Your task to perform on an android device: open a bookmark in the chrome app Image 0: 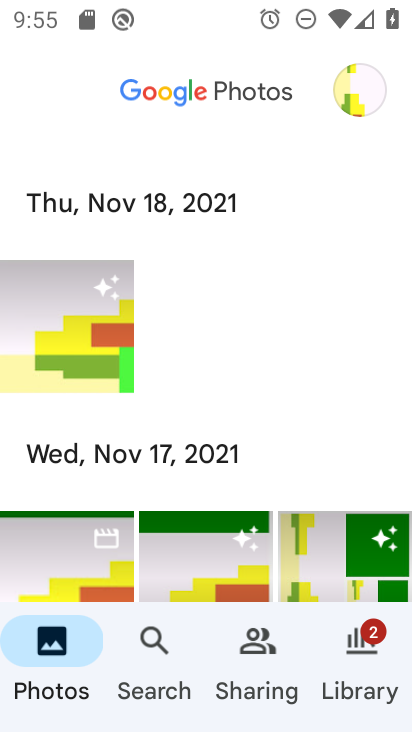
Step 0: press home button
Your task to perform on an android device: open a bookmark in the chrome app Image 1: 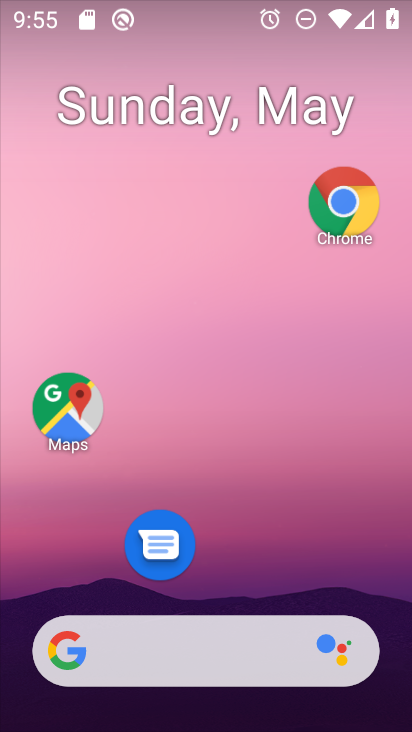
Step 1: click (347, 196)
Your task to perform on an android device: open a bookmark in the chrome app Image 2: 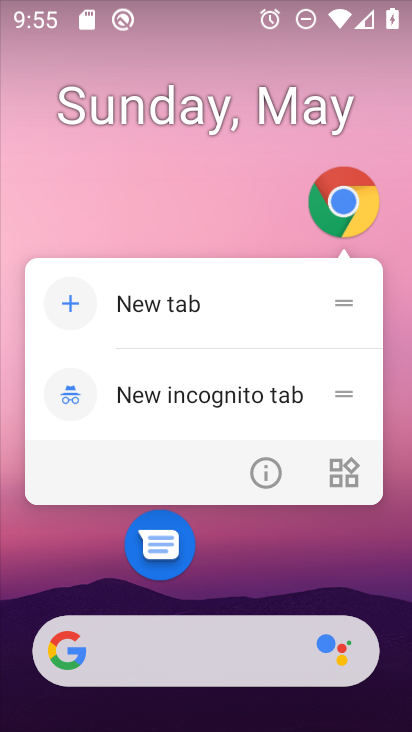
Step 2: click (347, 196)
Your task to perform on an android device: open a bookmark in the chrome app Image 3: 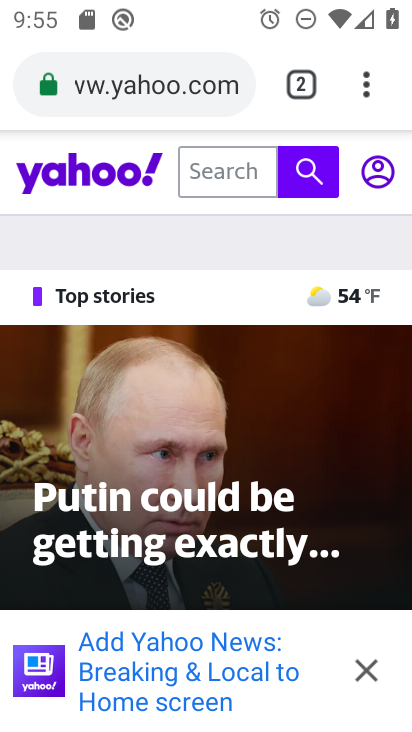
Step 3: click (356, 83)
Your task to perform on an android device: open a bookmark in the chrome app Image 4: 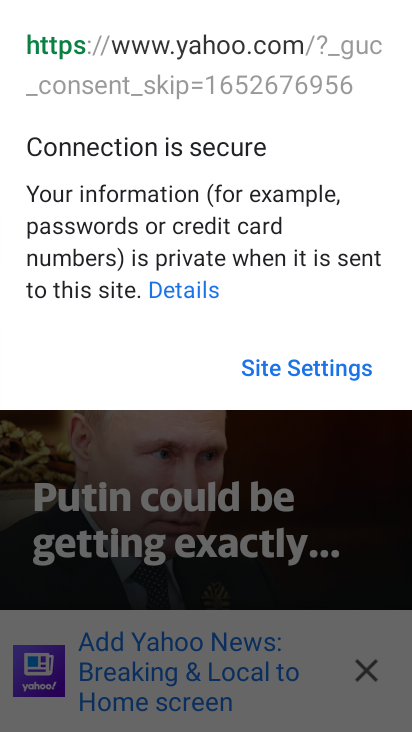
Step 4: click (288, 503)
Your task to perform on an android device: open a bookmark in the chrome app Image 5: 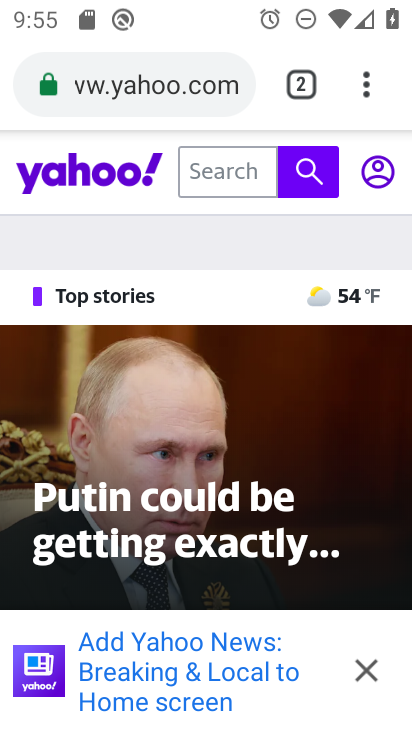
Step 5: click (367, 93)
Your task to perform on an android device: open a bookmark in the chrome app Image 6: 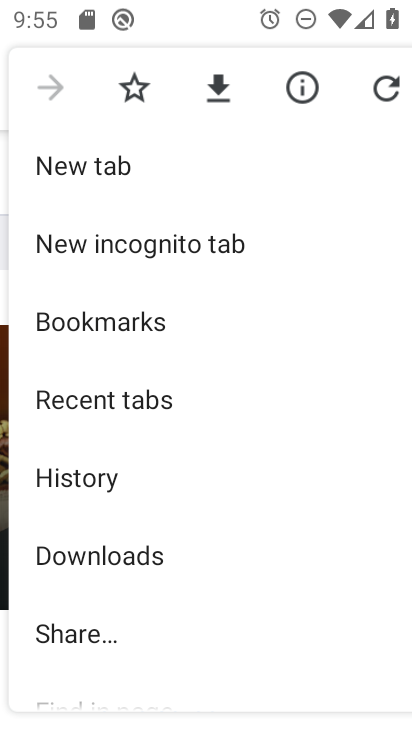
Step 6: click (152, 334)
Your task to perform on an android device: open a bookmark in the chrome app Image 7: 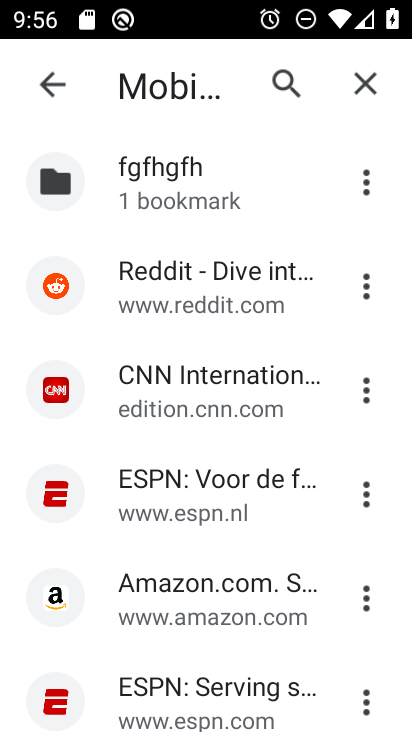
Step 7: click (217, 275)
Your task to perform on an android device: open a bookmark in the chrome app Image 8: 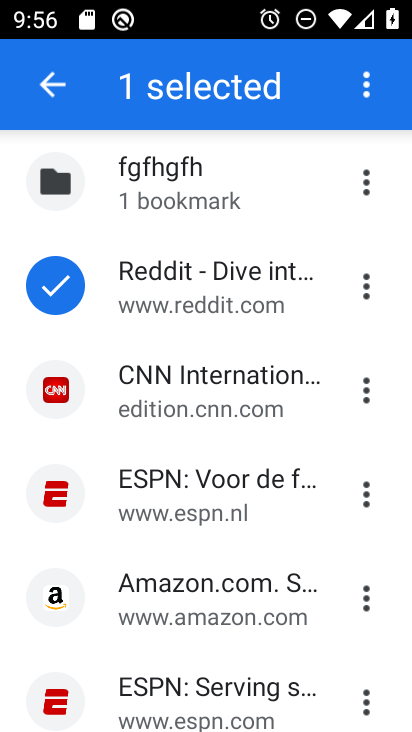
Step 8: click (136, 295)
Your task to perform on an android device: open a bookmark in the chrome app Image 9: 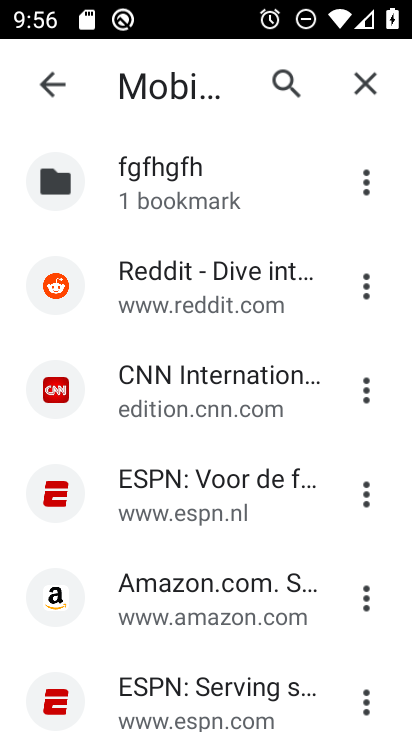
Step 9: click (164, 291)
Your task to perform on an android device: open a bookmark in the chrome app Image 10: 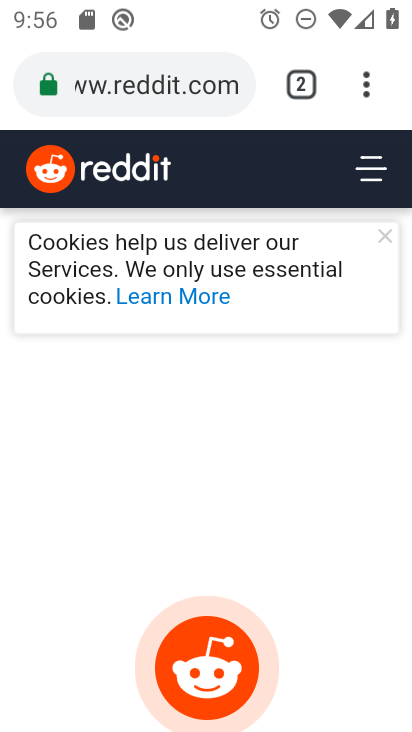
Step 10: task complete